Your task to perform on an android device: Open maps Image 0: 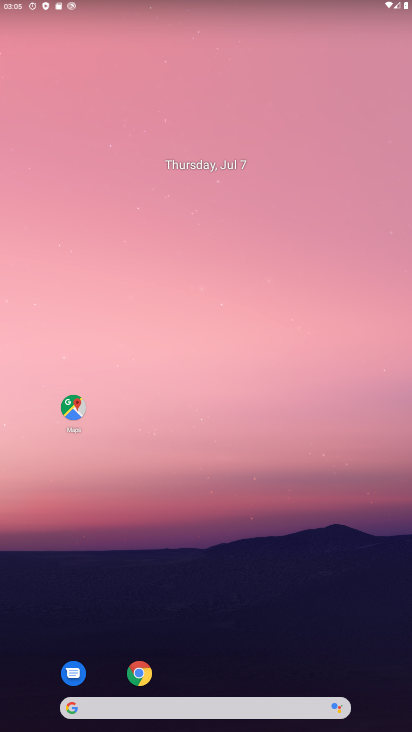
Step 0: click (72, 414)
Your task to perform on an android device: Open maps Image 1: 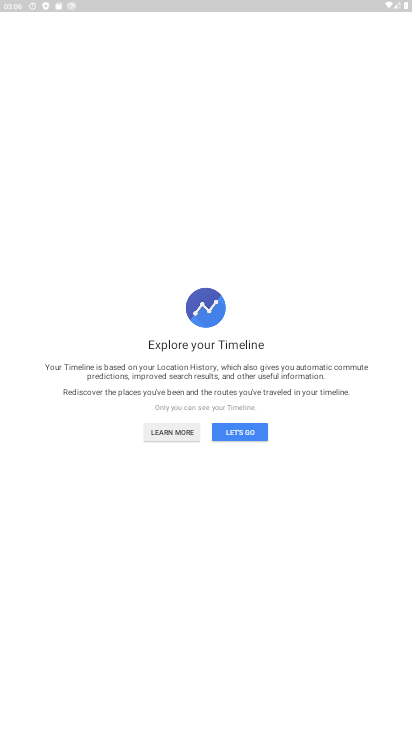
Step 1: task complete